Your task to perform on an android device: Open Chrome and go to the settings page Image 0: 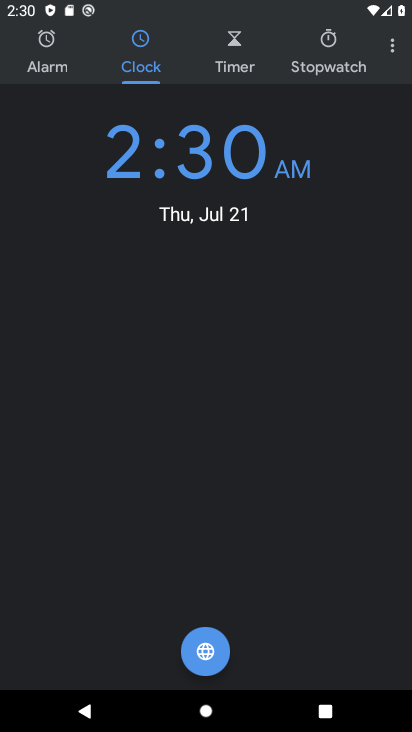
Step 0: press home button
Your task to perform on an android device: Open Chrome and go to the settings page Image 1: 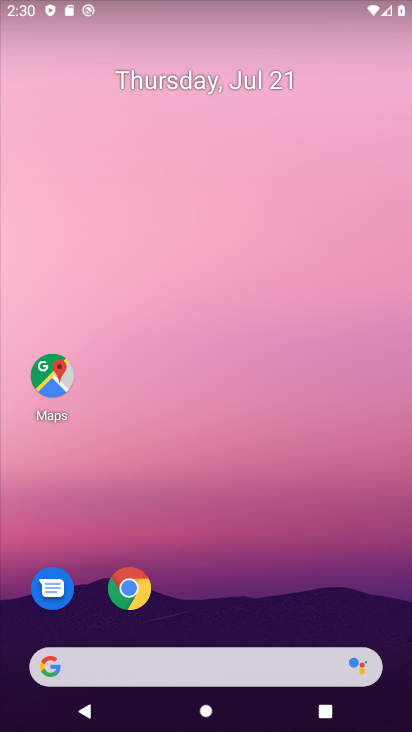
Step 1: click (129, 585)
Your task to perform on an android device: Open Chrome and go to the settings page Image 2: 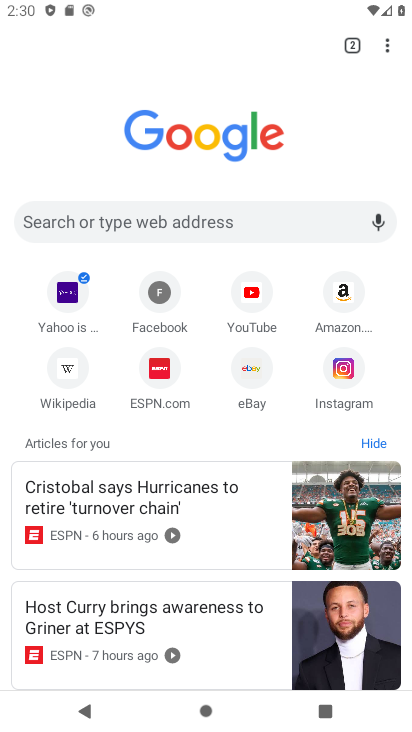
Step 2: click (387, 40)
Your task to perform on an android device: Open Chrome and go to the settings page Image 3: 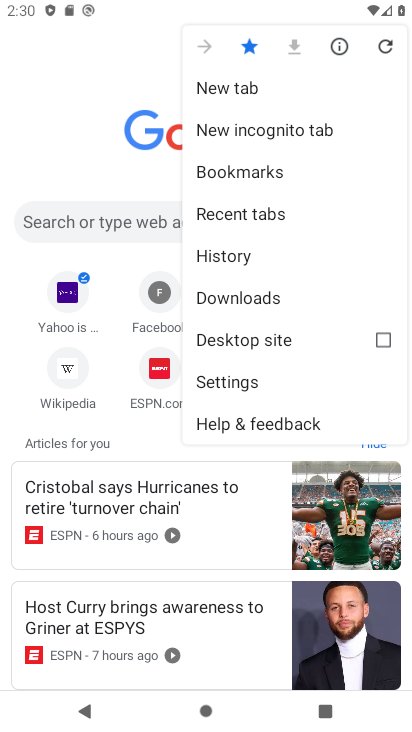
Step 3: click (237, 377)
Your task to perform on an android device: Open Chrome and go to the settings page Image 4: 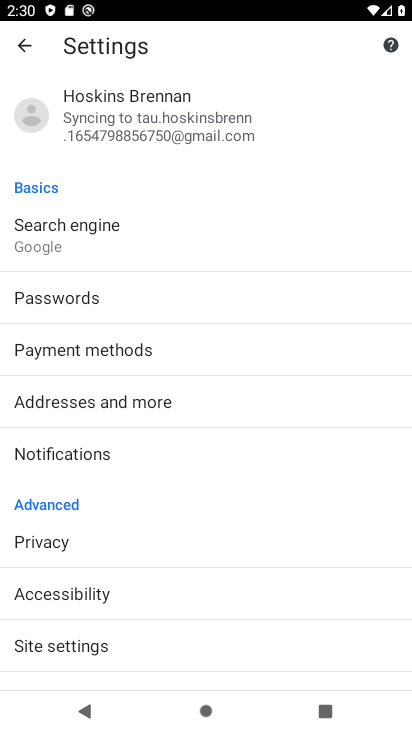
Step 4: task complete